Your task to perform on an android device: Open calendar and show me the second week of next month Image 0: 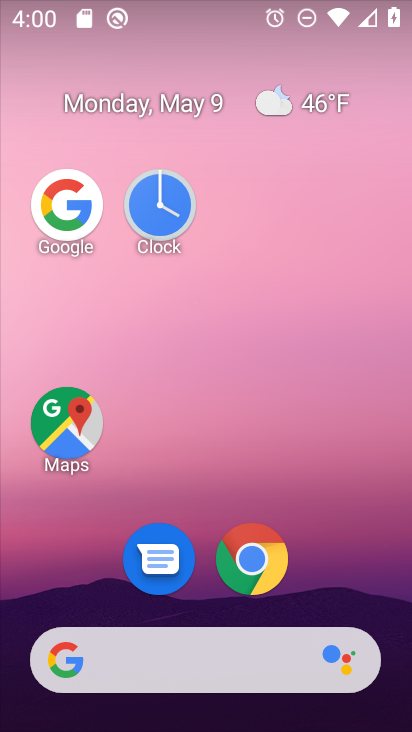
Step 0: drag from (335, 594) to (315, 135)
Your task to perform on an android device: Open calendar and show me the second week of next month Image 1: 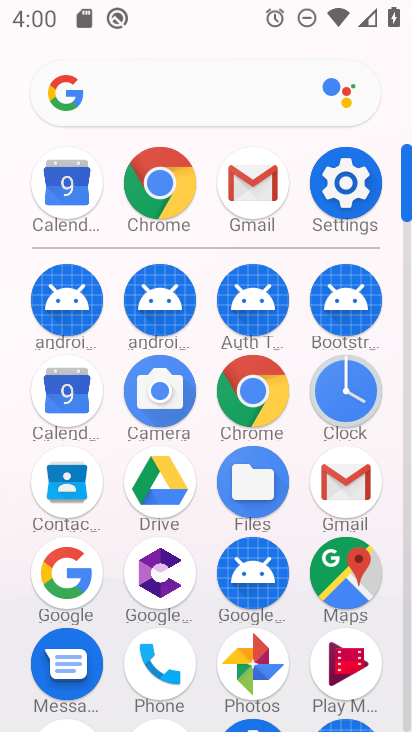
Step 1: click (86, 400)
Your task to perform on an android device: Open calendar and show me the second week of next month Image 2: 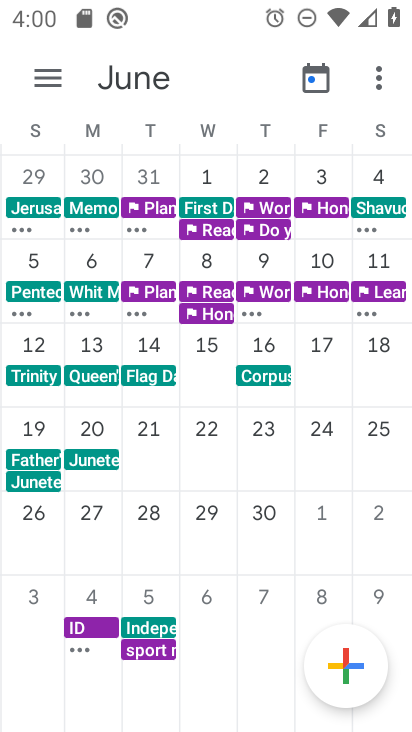
Step 2: click (43, 72)
Your task to perform on an android device: Open calendar and show me the second week of next month Image 3: 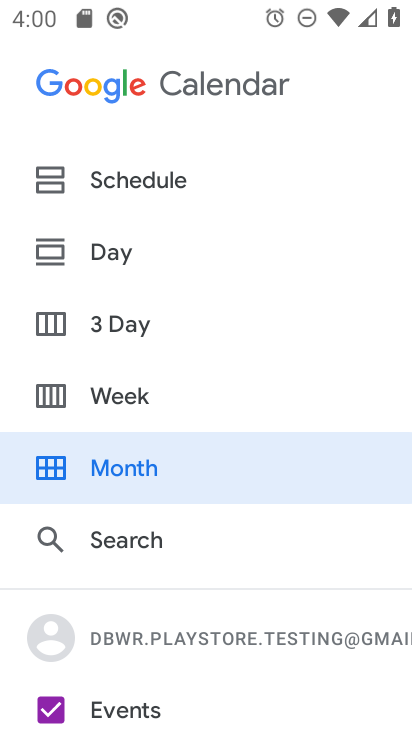
Step 3: click (165, 467)
Your task to perform on an android device: Open calendar and show me the second week of next month Image 4: 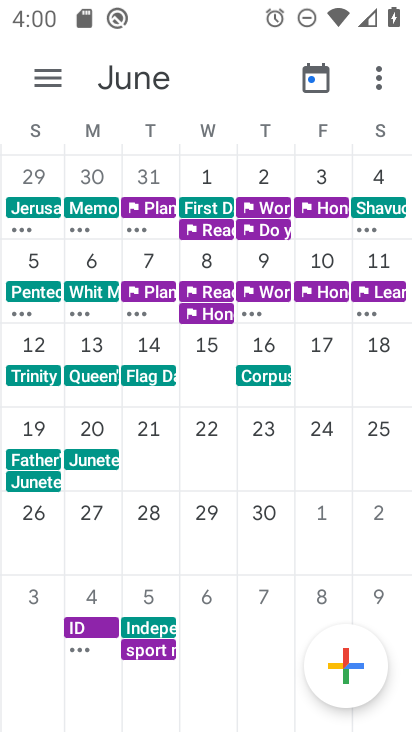
Step 4: click (18, 67)
Your task to perform on an android device: Open calendar and show me the second week of next month Image 5: 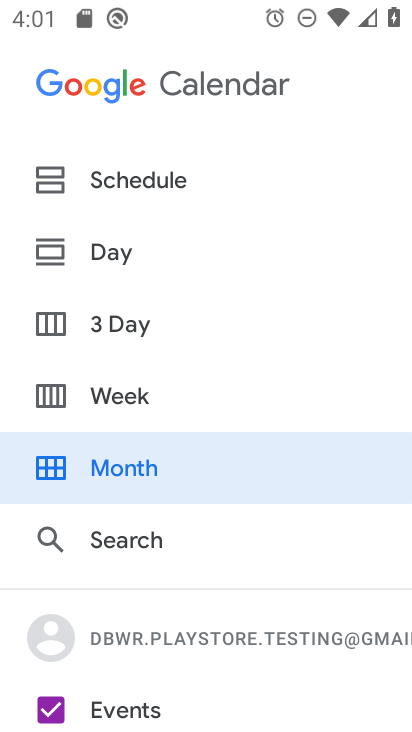
Step 5: click (147, 382)
Your task to perform on an android device: Open calendar and show me the second week of next month Image 6: 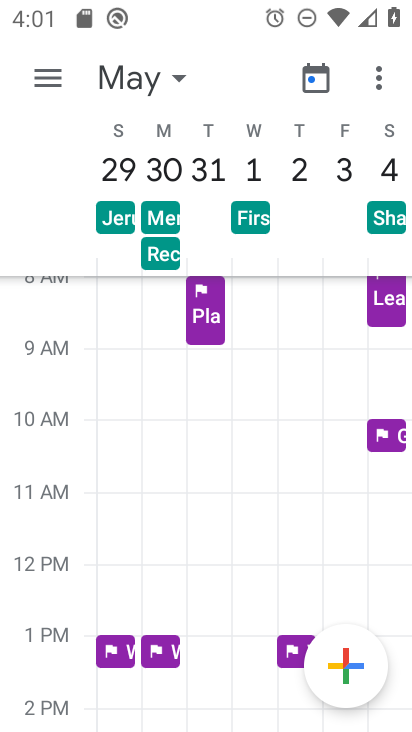
Step 6: task complete